Your task to perform on an android device: Open location settings Image 0: 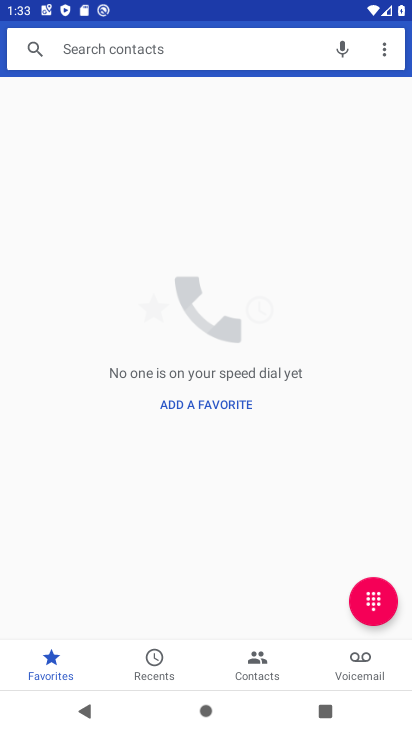
Step 0: press home button
Your task to perform on an android device: Open location settings Image 1: 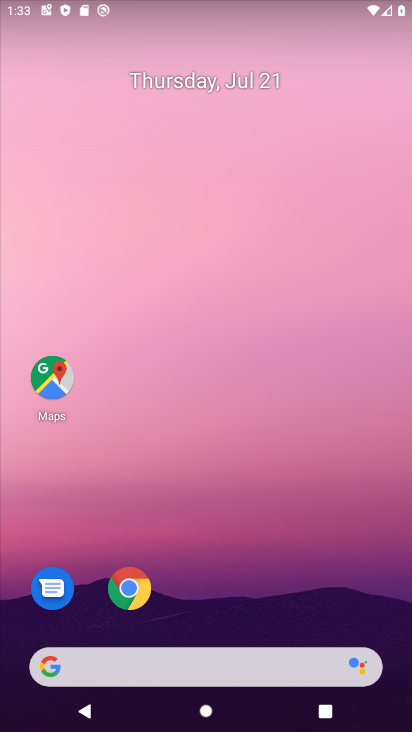
Step 1: drag from (343, 619) to (247, 64)
Your task to perform on an android device: Open location settings Image 2: 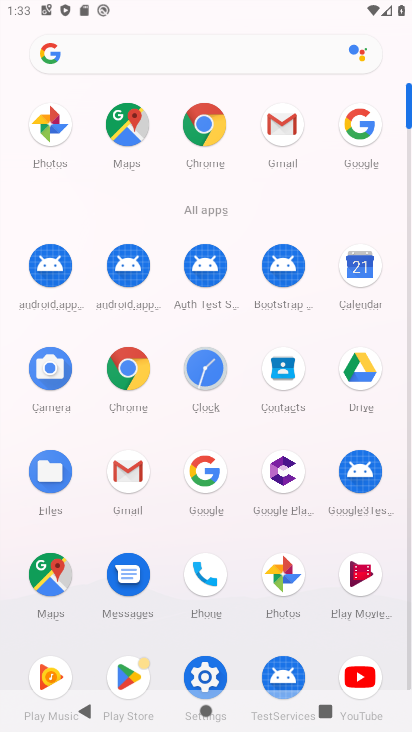
Step 2: click (206, 671)
Your task to perform on an android device: Open location settings Image 3: 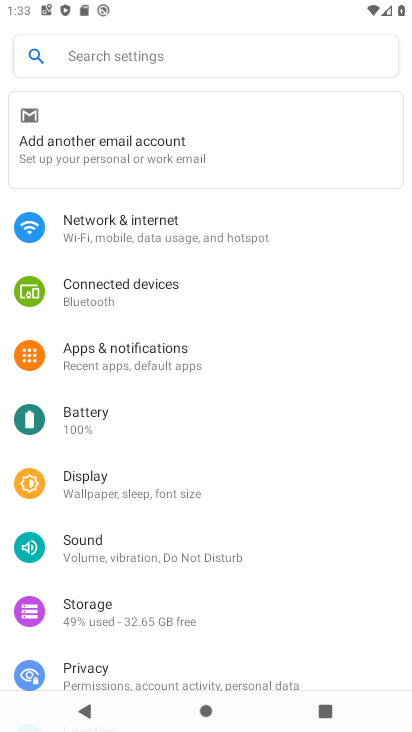
Step 3: drag from (160, 656) to (145, 262)
Your task to perform on an android device: Open location settings Image 4: 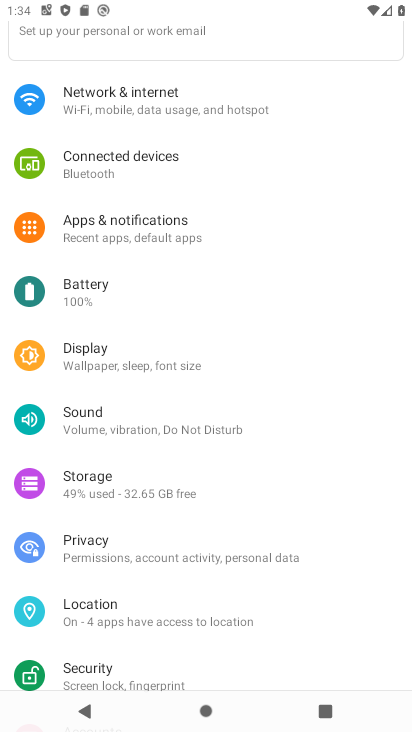
Step 4: click (138, 604)
Your task to perform on an android device: Open location settings Image 5: 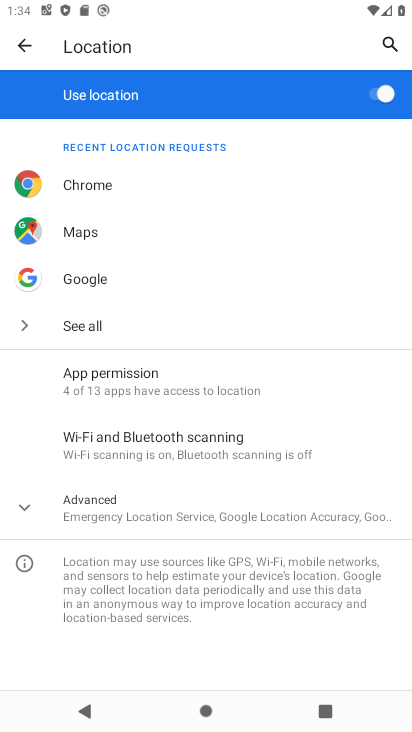
Step 5: task complete